Your task to perform on an android device: Open Youtube and go to "Your channel" Image 0: 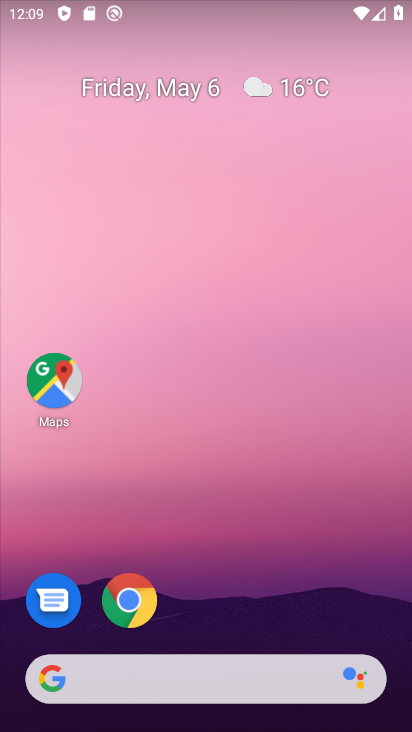
Step 0: drag from (213, 610) to (269, 66)
Your task to perform on an android device: Open Youtube and go to "Your channel" Image 1: 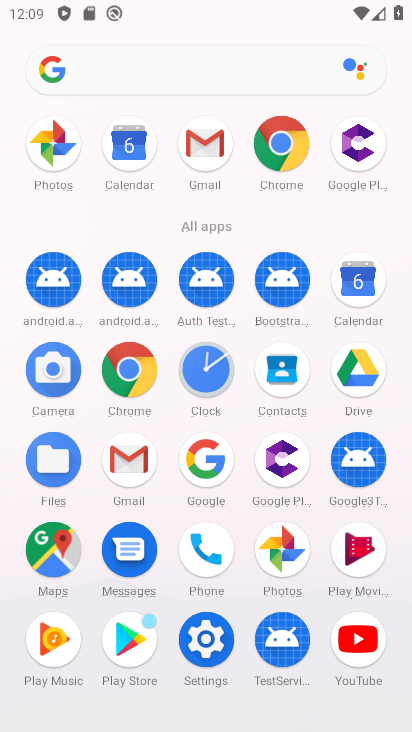
Step 1: click (360, 644)
Your task to perform on an android device: Open Youtube and go to "Your channel" Image 2: 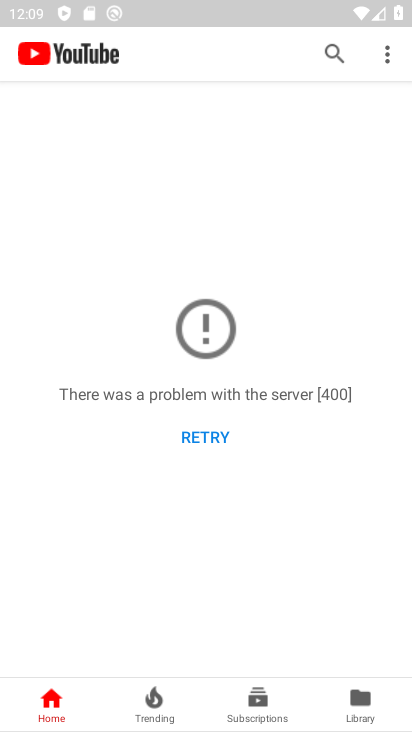
Step 2: click (390, 49)
Your task to perform on an android device: Open Youtube and go to "Your channel" Image 3: 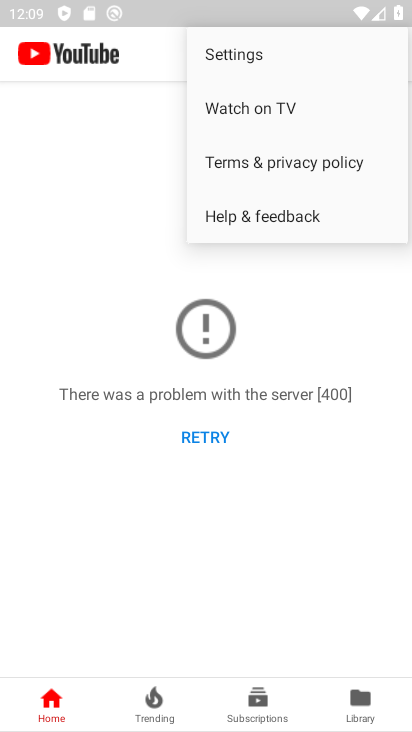
Step 3: click (259, 52)
Your task to perform on an android device: Open Youtube and go to "Your channel" Image 4: 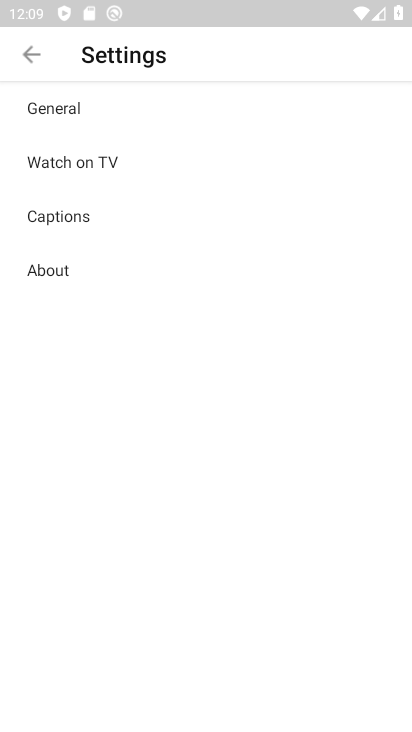
Step 4: task complete